Your task to perform on an android device: star an email in the gmail app Image 0: 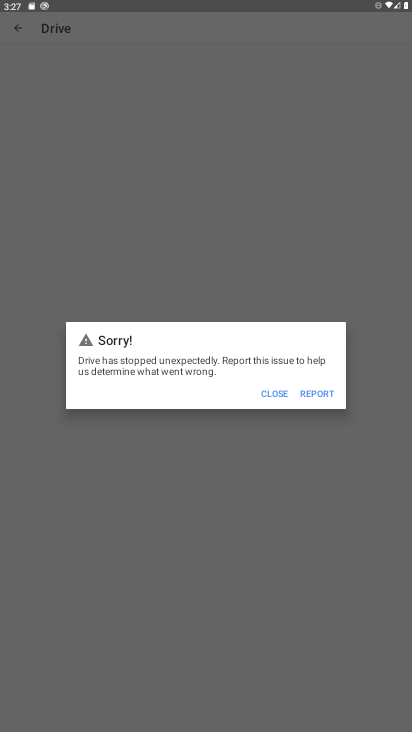
Step 0: press home button
Your task to perform on an android device: star an email in the gmail app Image 1: 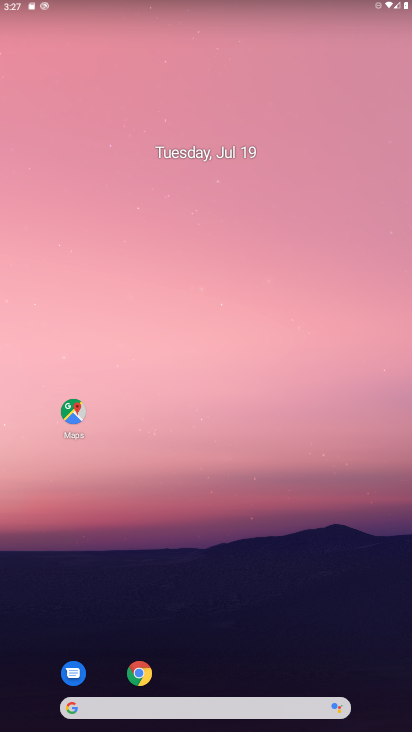
Step 1: drag from (208, 660) to (221, 15)
Your task to perform on an android device: star an email in the gmail app Image 2: 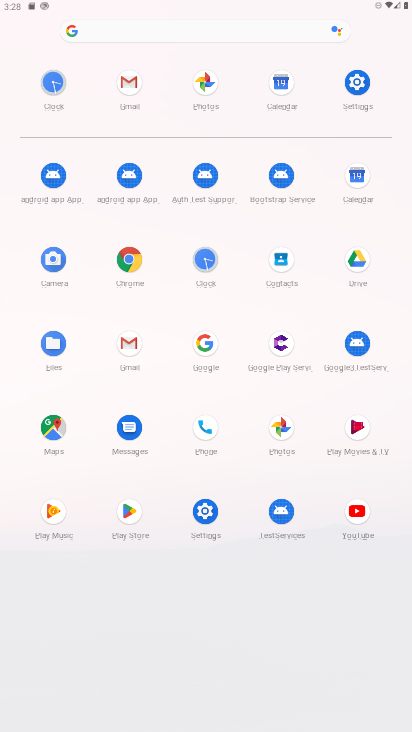
Step 2: click (133, 353)
Your task to perform on an android device: star an email in the gmail app Image 3: 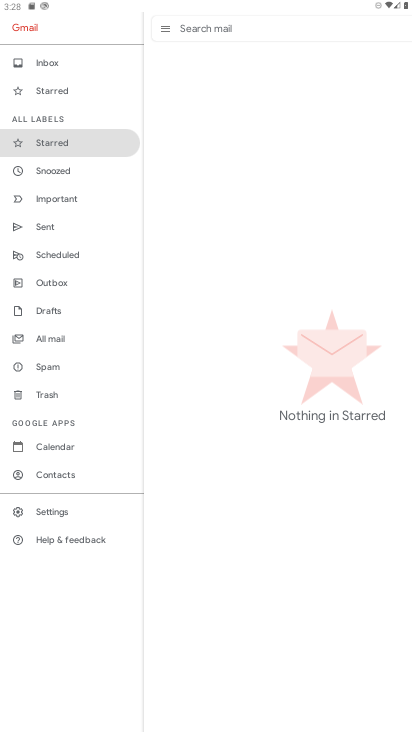
Step 3: click (46, 58)
Your task to perform on an android device: star an email in the gmail app Image 4: 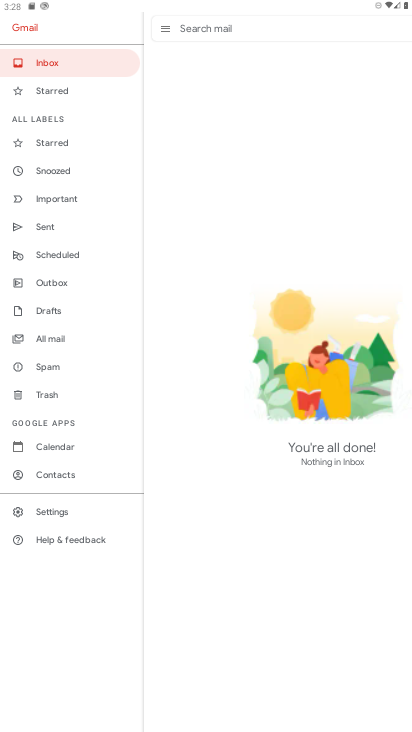
Step 4: task complete